Your task to perform on an android device: change notification settings in the gmail app Image 0: 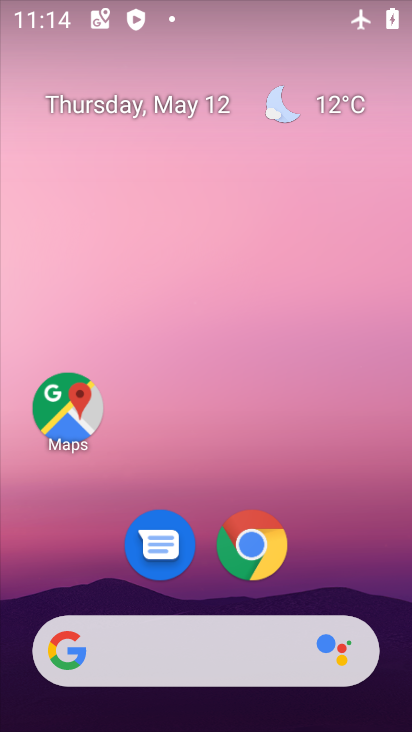
Step 0: drag from (207, 577) to (239, 0)
Your task to perform on an android device: change notification settings in the gmail app Image 1: 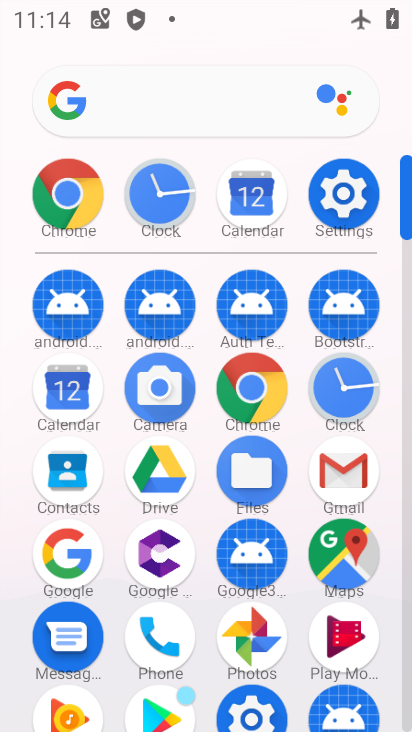
Step 1: click (349, 468)
Your task to perform on an android device: change notification settings in the gmail app Image 2: 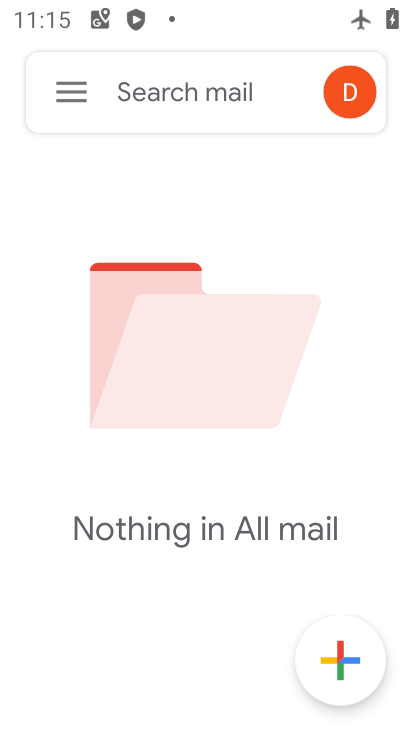
Step 2: click (67, 93)
Your task to perform on an android device: change notification settings in the gmail app Image 3: 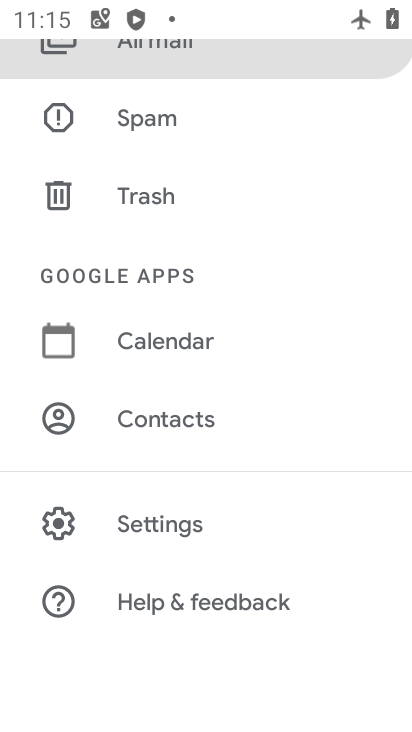
Step 3: click (141, 510)
Your task to perform on an android device: change notification settings in the gmail app Image 4: 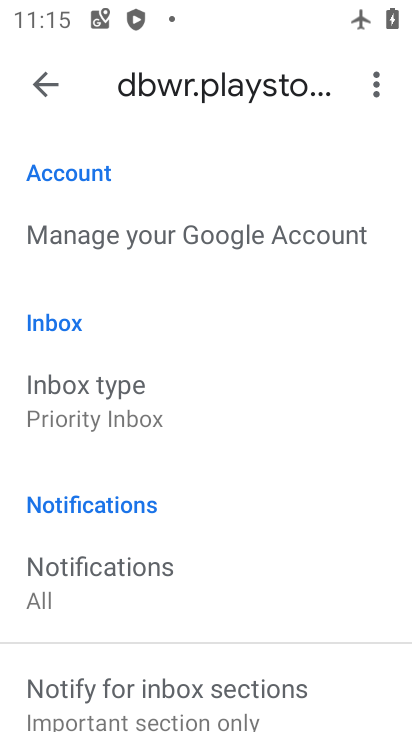
Step 4: click (48, 84)
Your task to perform on an android device: change notification settings in the gmail app Image 5: 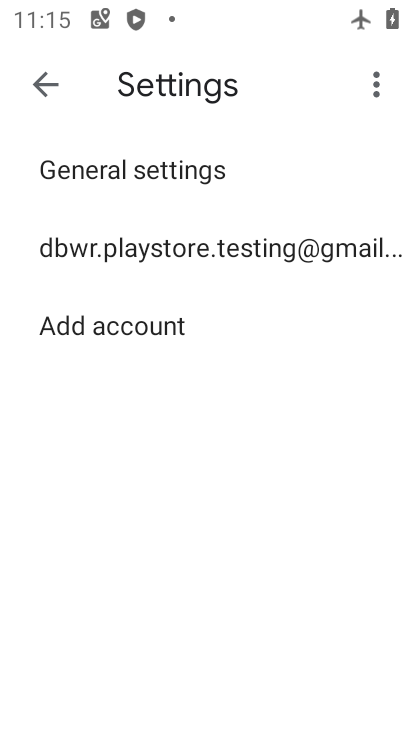
Step 5: click (229, 162)
Your task to perform on an android device: change notification settings in the gmail app Image 6: 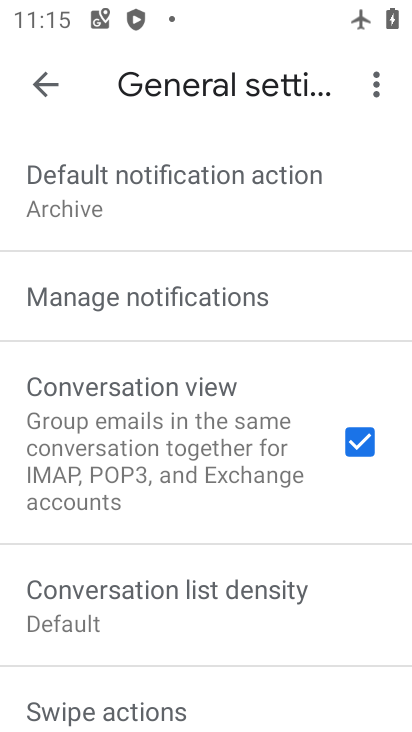
Step 6: click (157, 314)
Your task to perform on an android device: change notification settings in the gmail app Image 7: 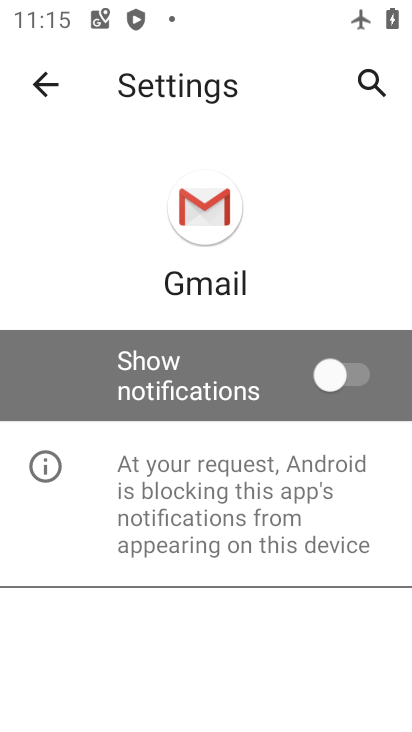
Step 7: click (343, 369)
Your task to perform on an android device: change notification settings in the gmail app Image 8: 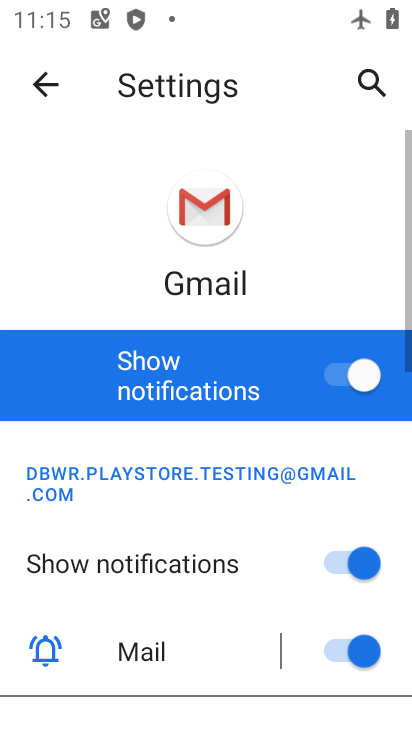
Step 8: task complete